Your task to perform on an android device: move a message to another label in the gmail app Image 0: 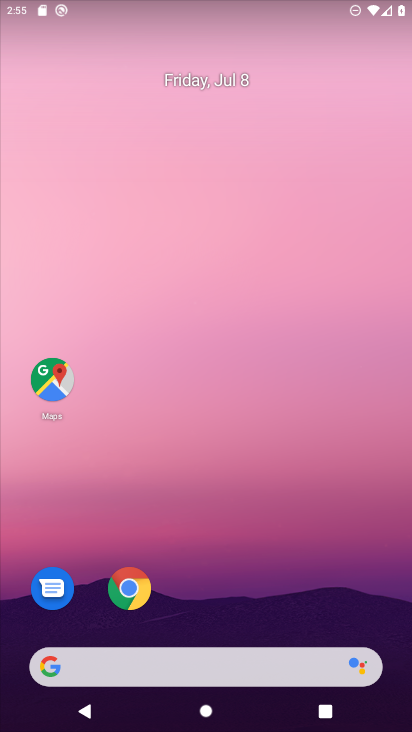
Step 0: drag from (230, 568) to (274, 42)
Your task to perform on an android device: move a message to another label in the gmail app Image 1: 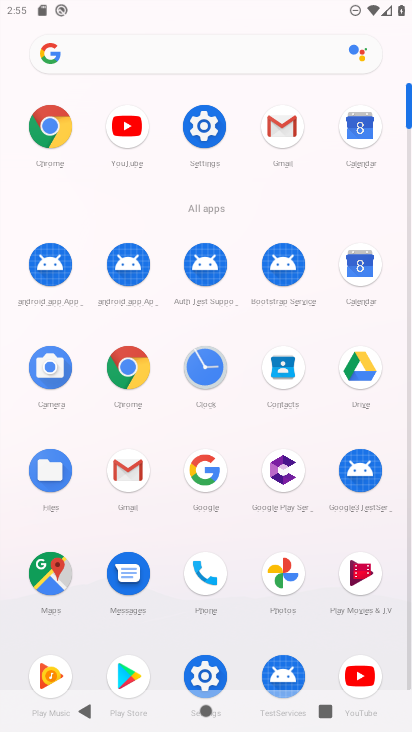
Step 1: click (283, 139)
Your task to perform on an android device: move a message to another label in the gmail app Image 2: 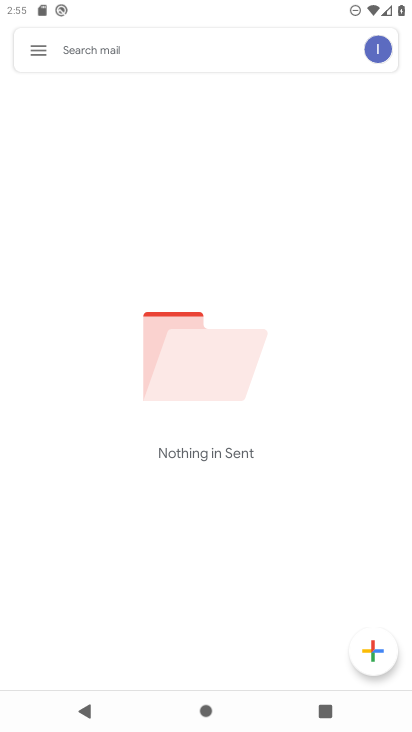
Step 2: click (37, 51)
Your task to perform on an android device: move a message to another label in the gmail app Image 3: 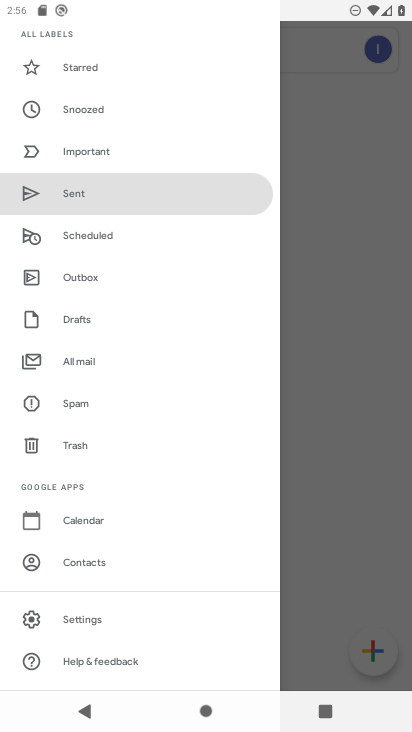
Step 3: click (37, 51)
Your task to perform on an android device: move a message to another label in the gmail app Image 4: 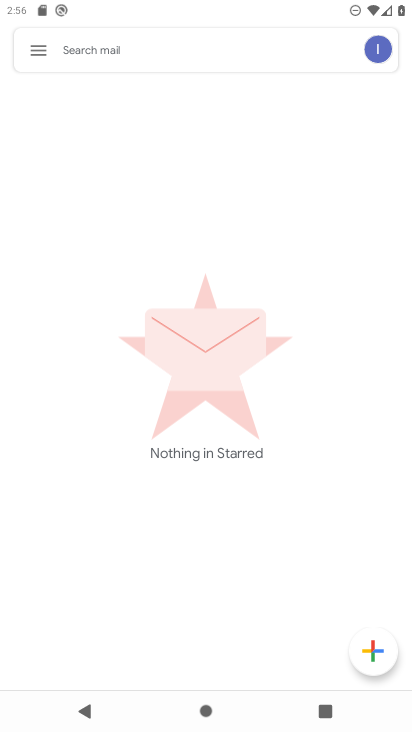
Step 4: click (32, 47)
Your task to perform on an android device: move a message to another label in the gmail app Image 5: 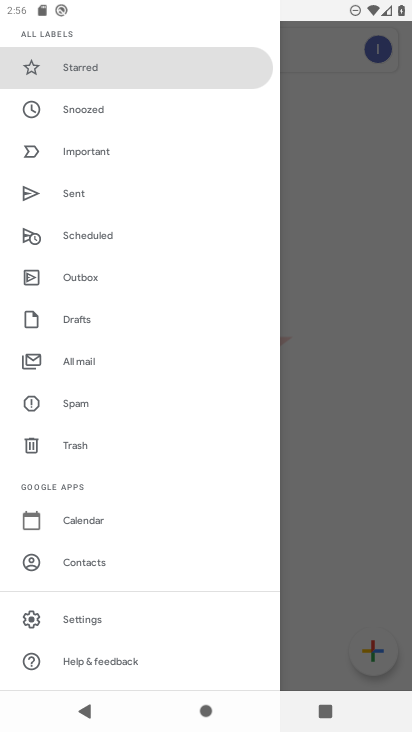
Step 5: click (65, 357)
Your task to perform on an android device: move a message to another label in the gmail app Image 6: 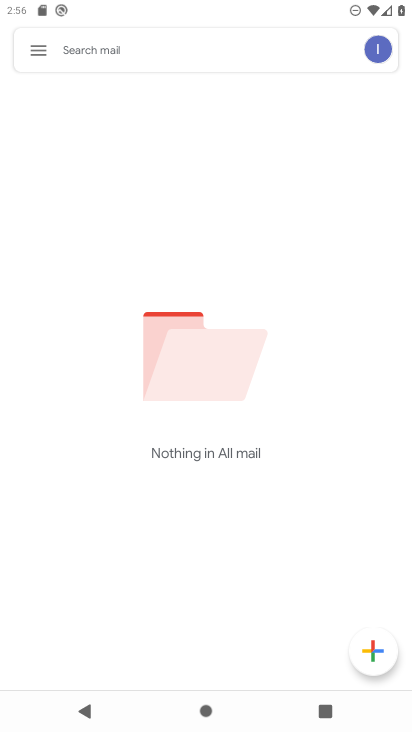
Step 6: task complete